Your task to perform on an android device: change text size in settings app Image 0: 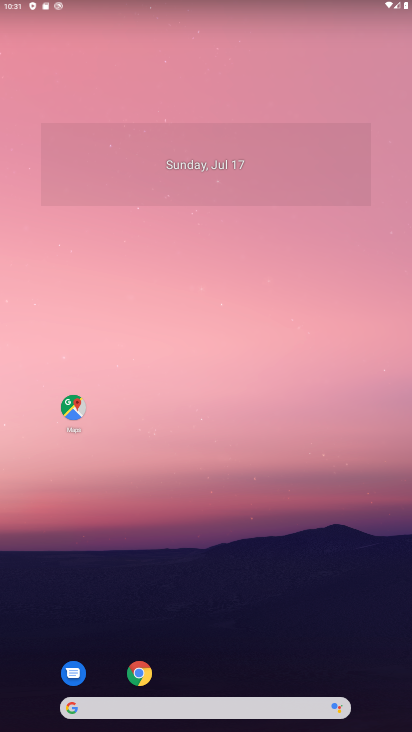
Step 0: drag from (197, 683) to (275, 116)
Your task to perform on an android device: change text size in settings app Image 1: 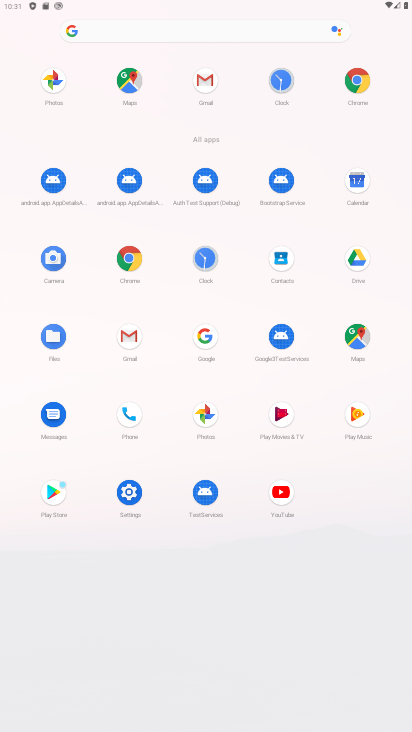
Step 1: click (122, 500)
Your task to perform on an android device: change text size in settings app Image 2: 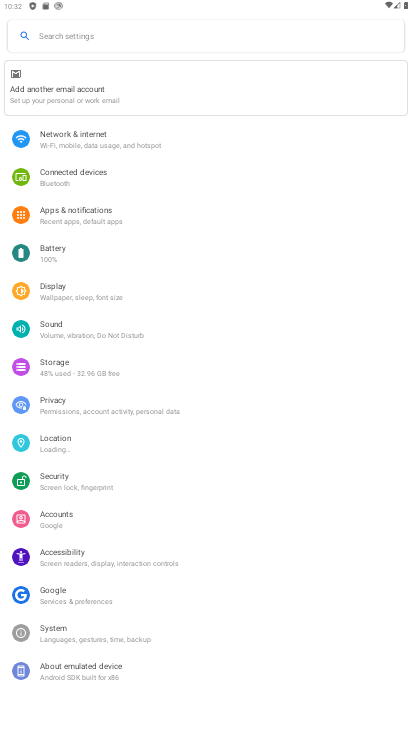
Step 2: click (61, 285)
Your task to perform on an android device: change text size in settings app Image 3: 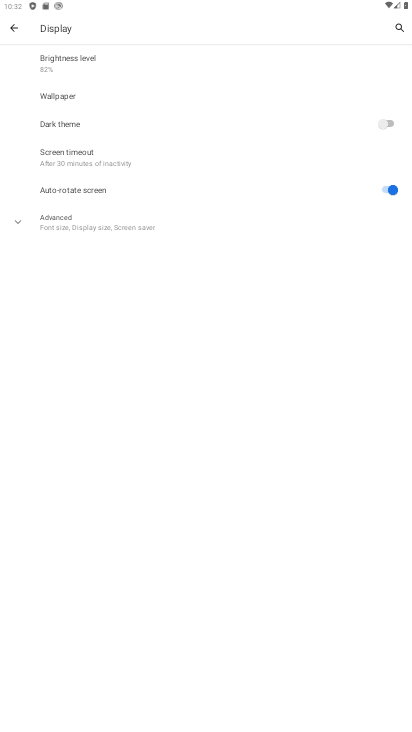
Step 3: click (81, 224)
Your task to perform on an android device: change text size in settings app Image 4: 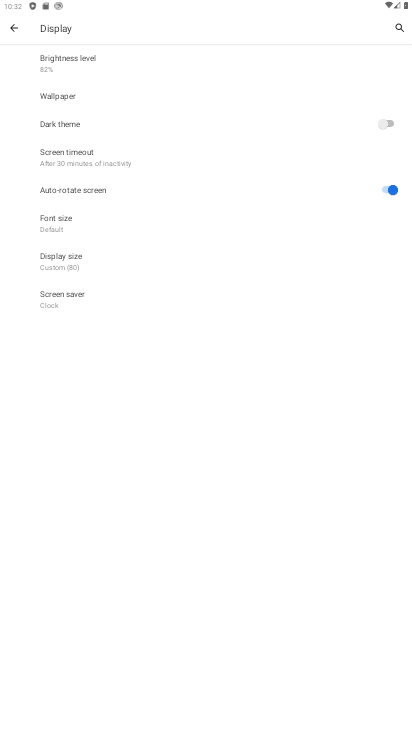
Step 4: click (98, 227)
Your task to perform on an android device: change text size in settings app Image 5: 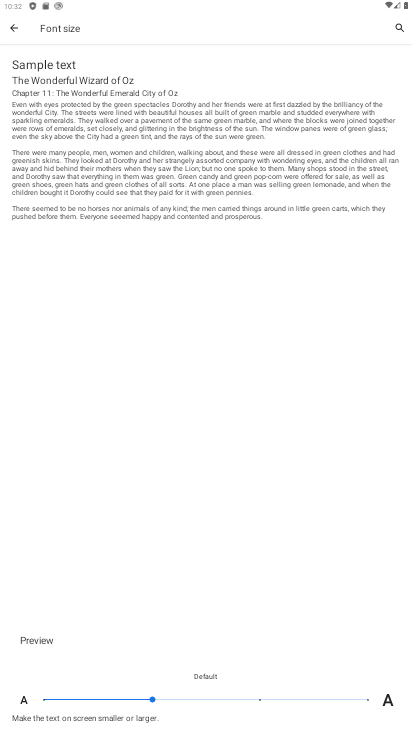
Step 5: click (258, 696)
Your task to perform on an android device: change text size in settings app Image 6: 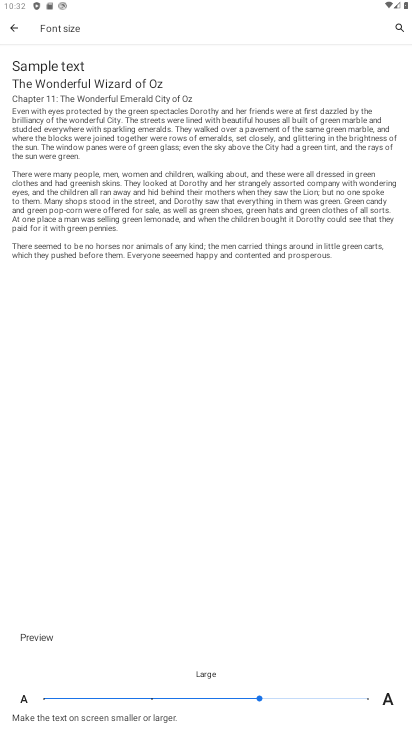
Step 6: task complete